Your task to perform on an android device: Search for seafood restaurants on Google Maps Image 0: 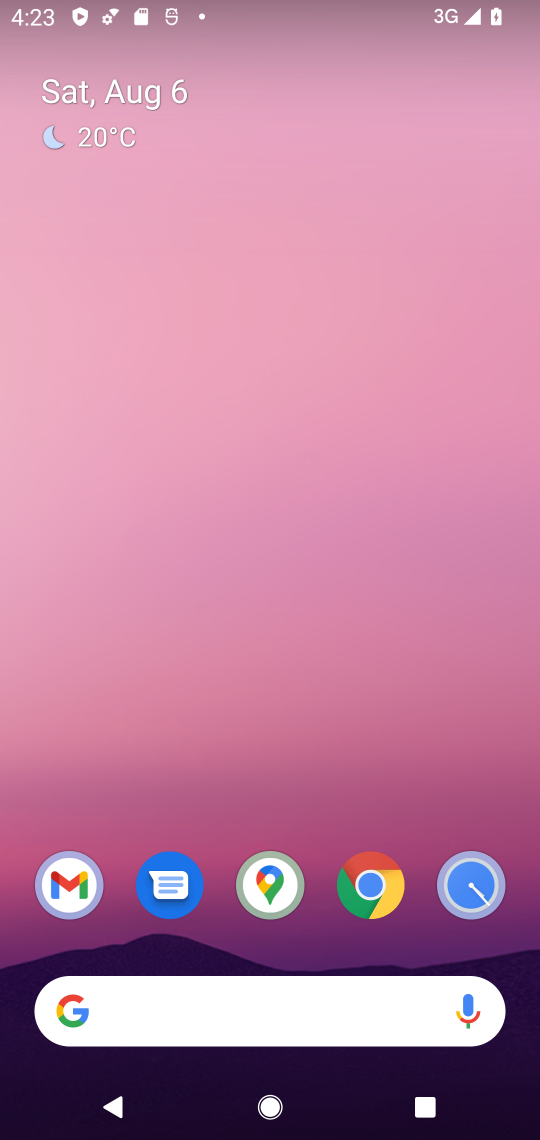
Step 0: drag from (436, 835) to (251, 48)
Your task to perform on an android device: Search for seafood restaurants on Google Maps Image 1: 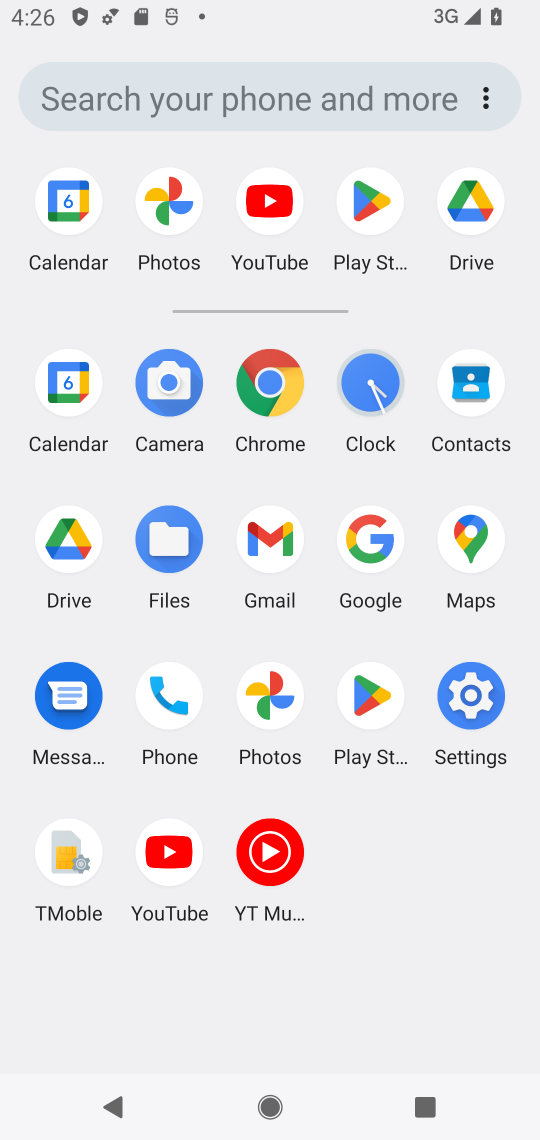
Step 1: click (489, 536)
Your task to perform on an android device: Search for seafood restaurants on Google Maps Image 2: 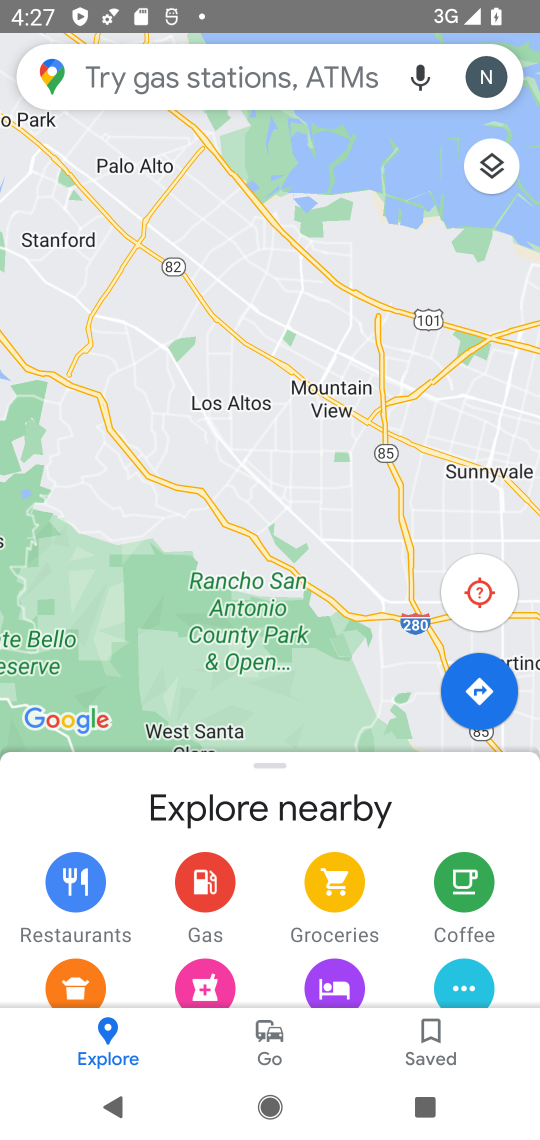
Step 2: click (204, 61)
Your task to perform on an android device: Search for seafood restaurants on Google Maps Image 3: 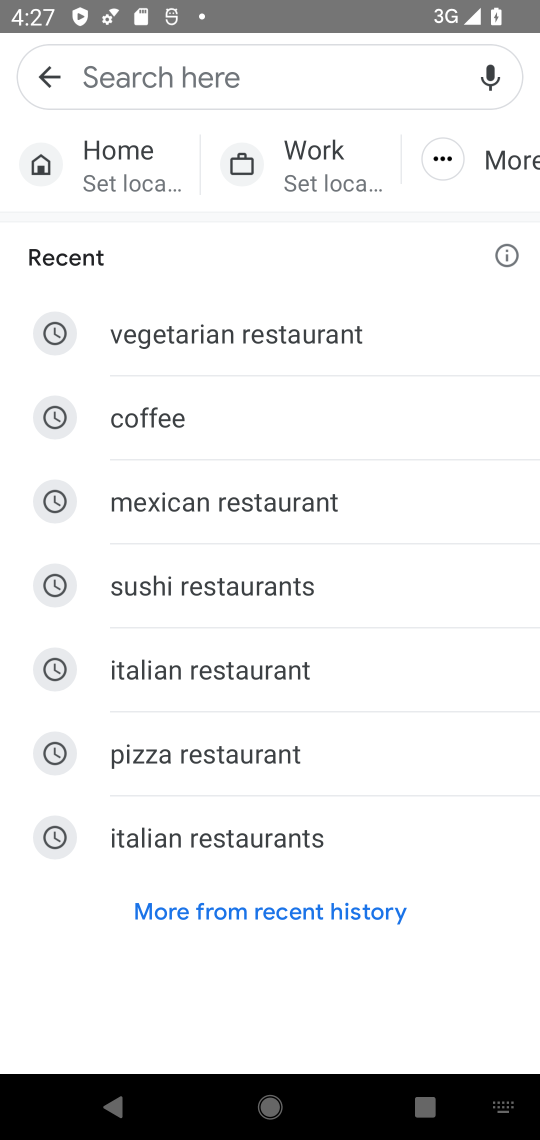
Step 3: type "seafood restaurants "
Your task to perform on an android device: Search for seafood restaurants on Google Maps Image 4: 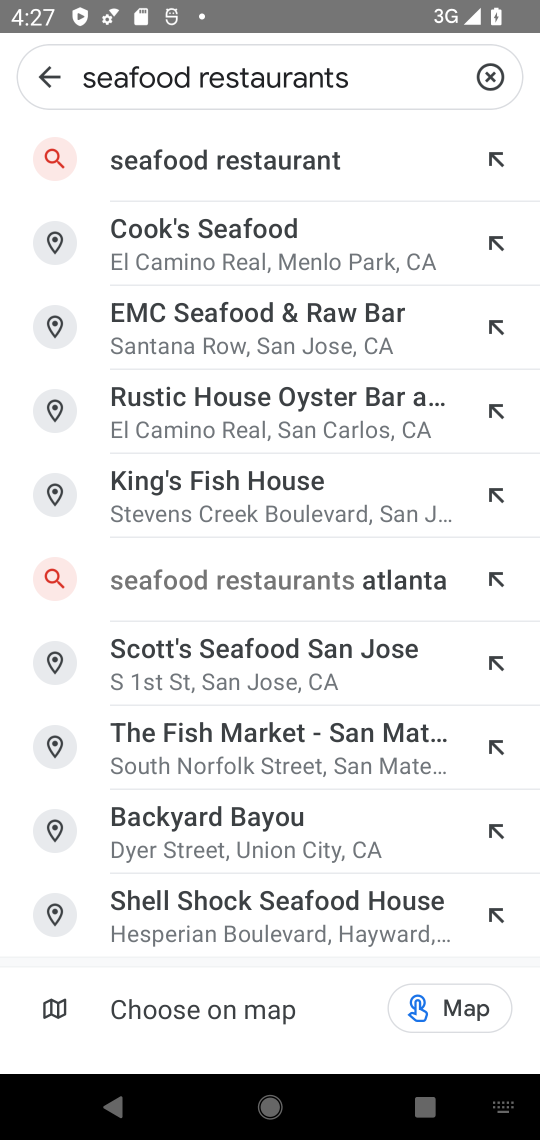
Step 4: click (249, 175)
Your task to perform on an android device: Search for seafood restaurants on Google Maps Image 5: 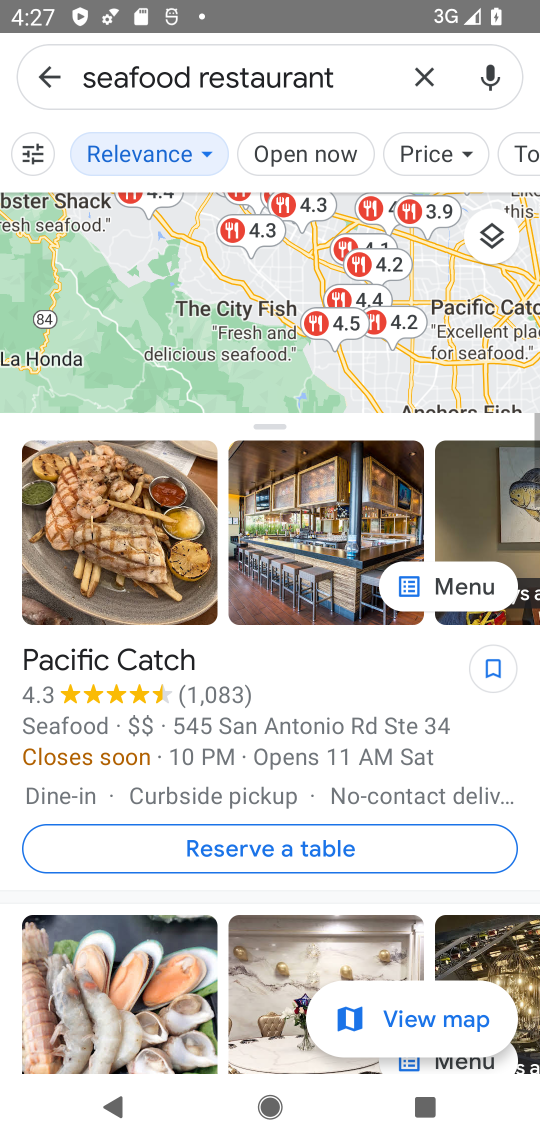
Step 5: task complete